Your task to perform on an android device: star an email in the gmail app Image 0: 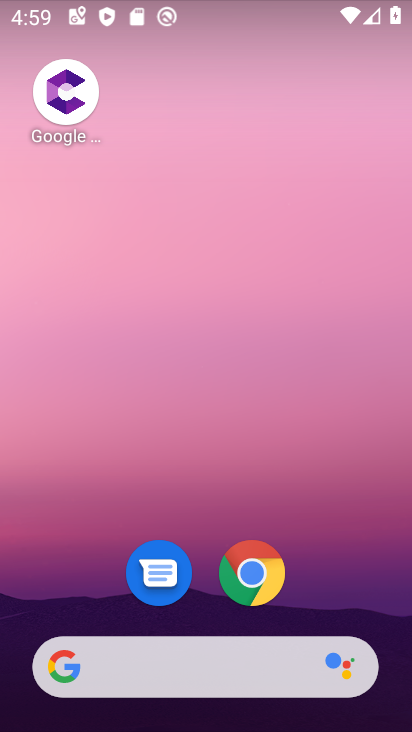
Step 0: click (309, 330)
Your task to perform on an android device: star an email in the gmail app Image 1: 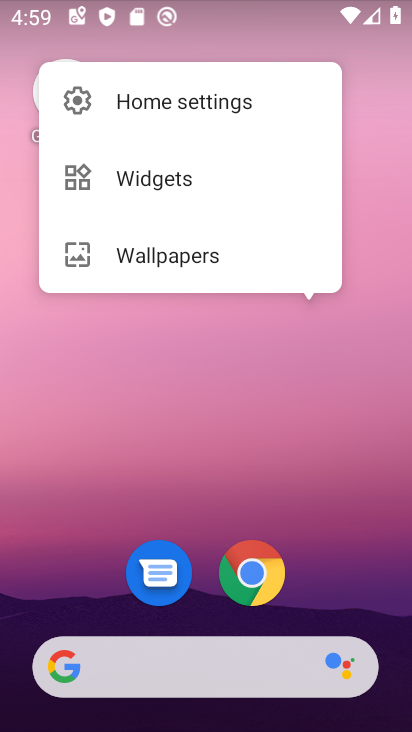
Step 1: click (342, 294)
Your task to perform on an android device: star an email in the gmail app Image 2: 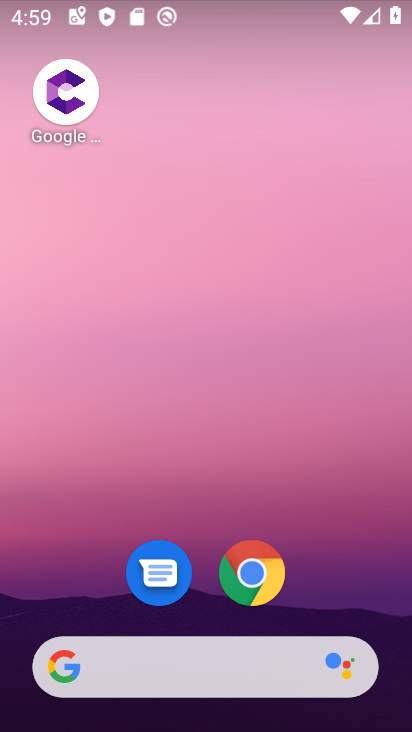
Step 2: drag from (292, 609) to (293, 233)
Your task to perform on an android device: star an email in the gmail app Image 3: 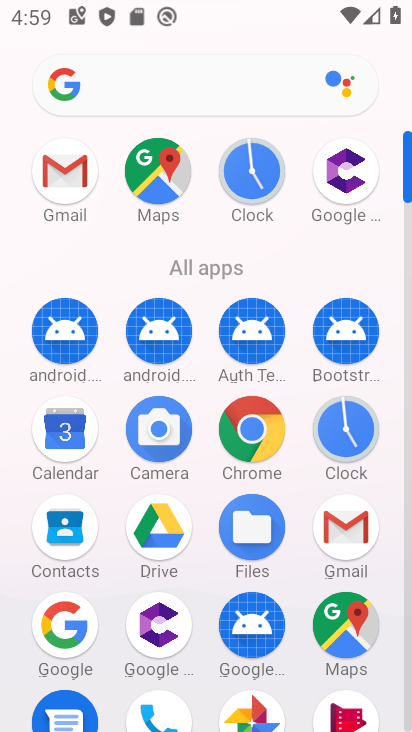
Step 3: click (60, 179)
Your task to perform on an android device: star an email in the gmail app Image 4: 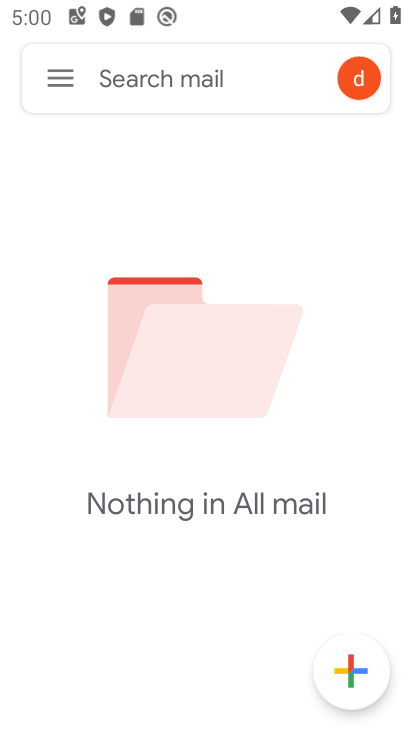
Step 4: task complete